Your task to perform on an android device: search for starred emails in the gmail app Image 0: 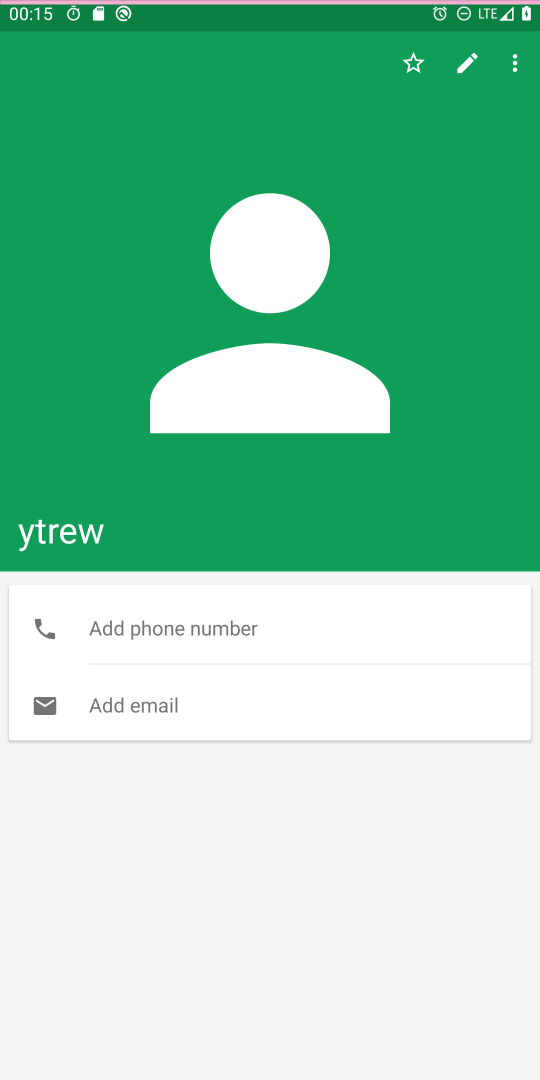
Step 0: press home button
Your task to perform on an android device: search for starred emails in the gmail app Image 1: 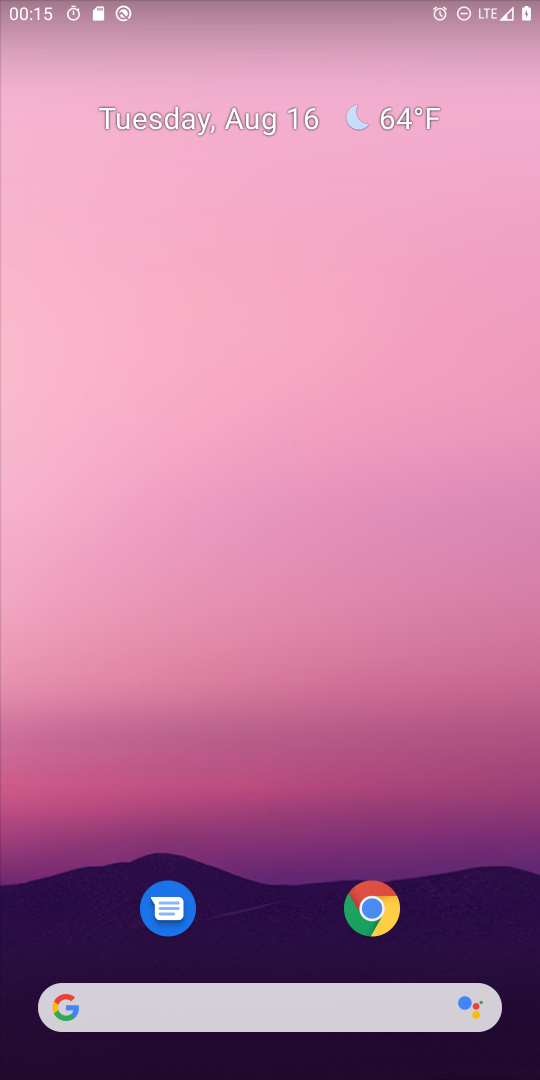
Step 1: drag from (293, 929) to (234, 112)
Your task to perform on an android device: search for starred emails in the gmail app Image 2: 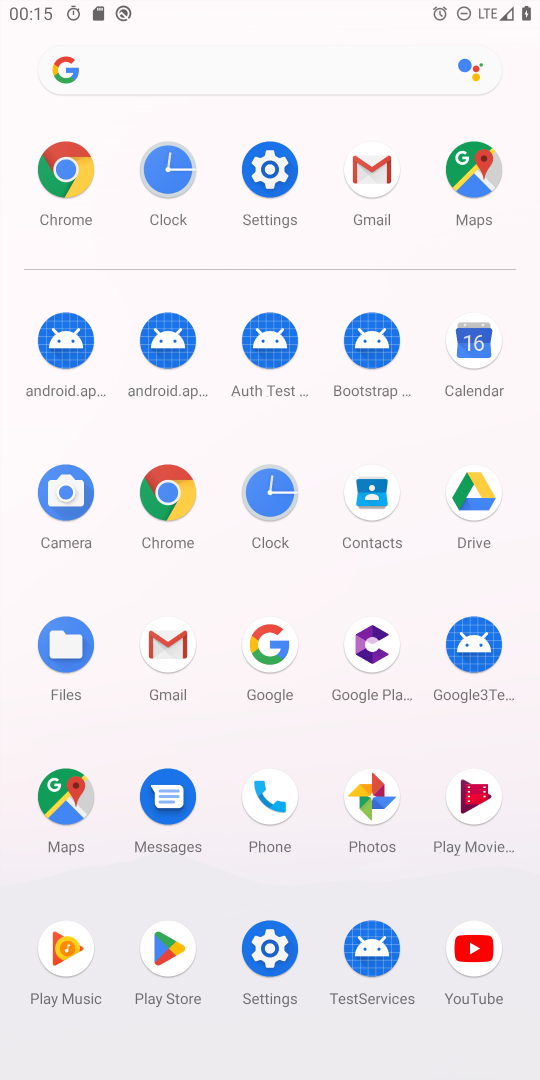
Step 2: click (378, 178)
Your task to perform on an android device: search for starred emails in the gmail app Image 3: 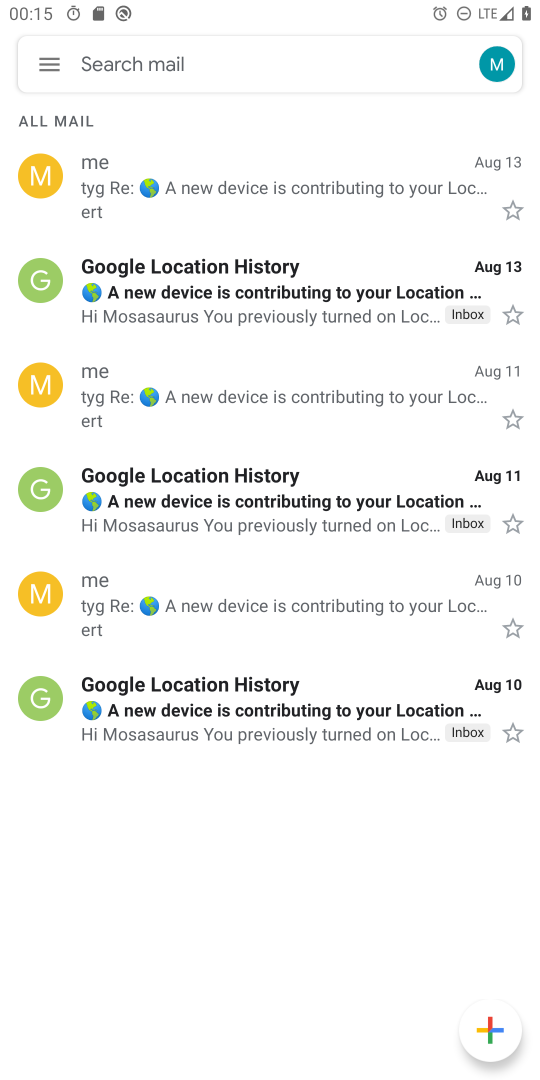
Step 3: click (52, 60)
Your task to perform on an android device: search for starred emails in the gmail app Image 4: 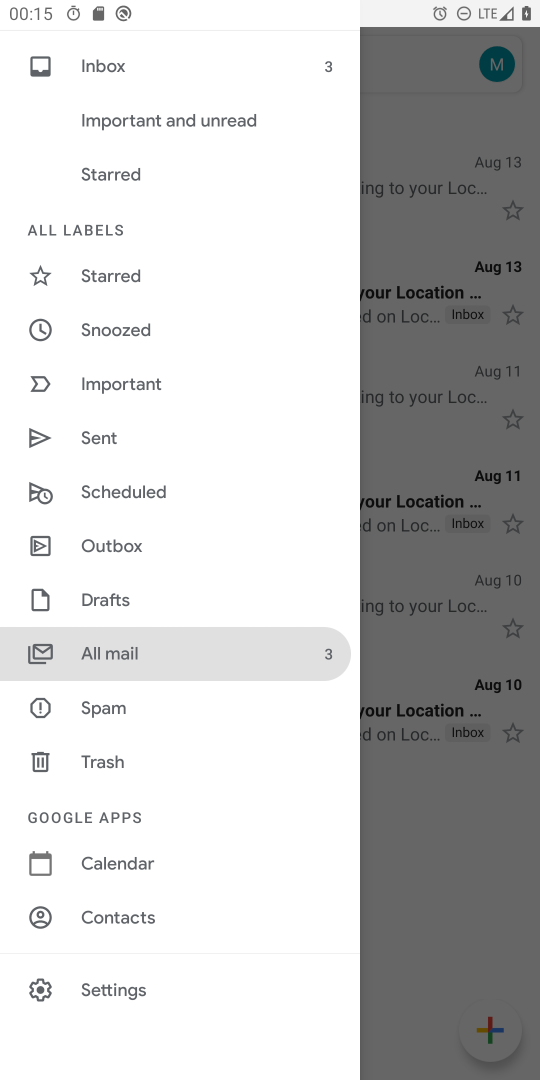
Step 4: click (128, 291)
Your task to perform on an android device: search for starred emails in the gmail app Image 5: 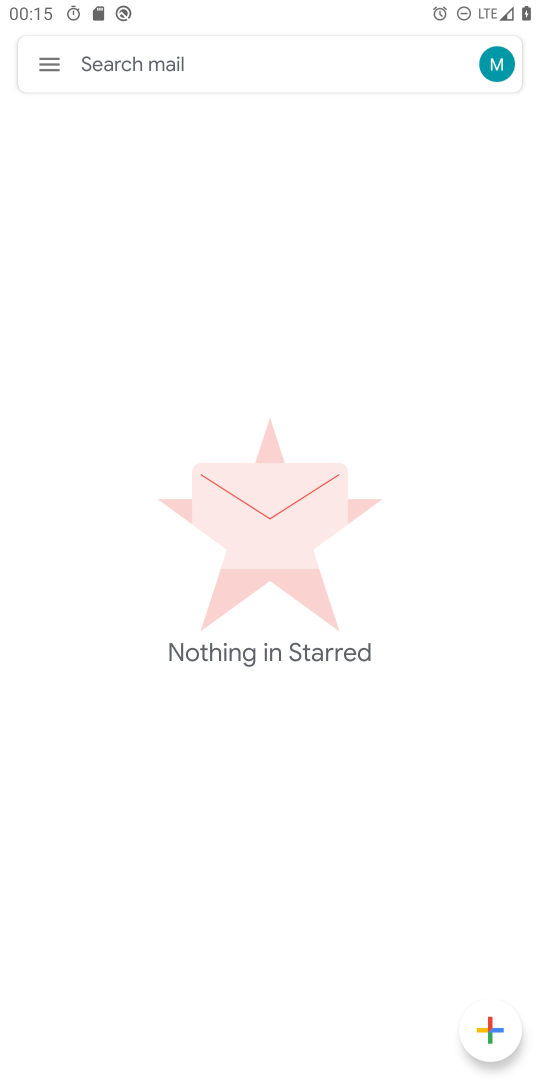
Step 5: task complete